Your task to perform on an android device: find photos in the google photos app Image 0: 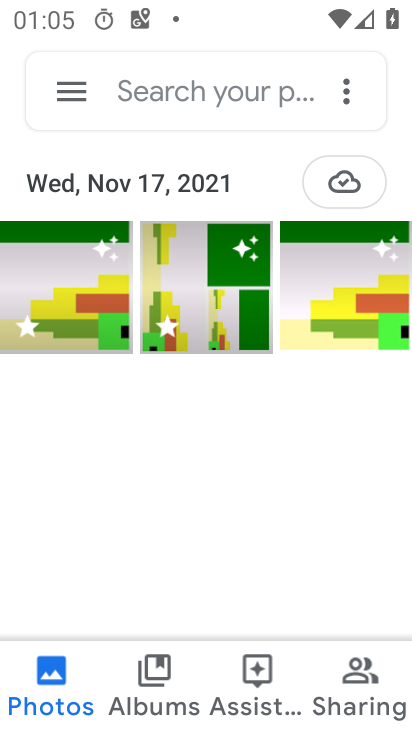
Step 0: press home button
Your task to perform on an android device: find photos in the google photos app Image 1: 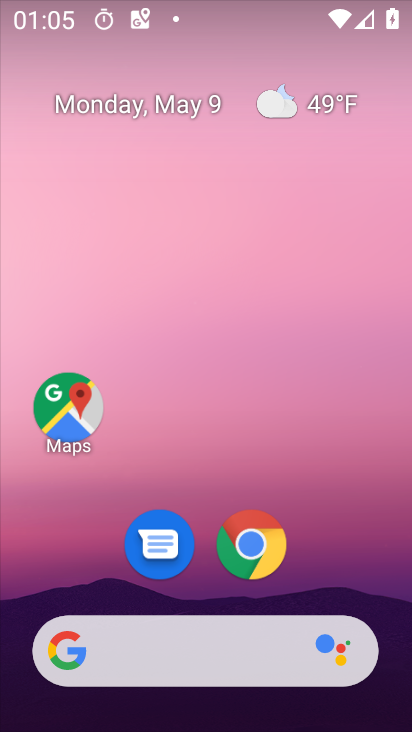
Step 1: drag from (345, 643) to (300, 51)
Your task to perform on an android device: find photos in the google photos app Image 2: 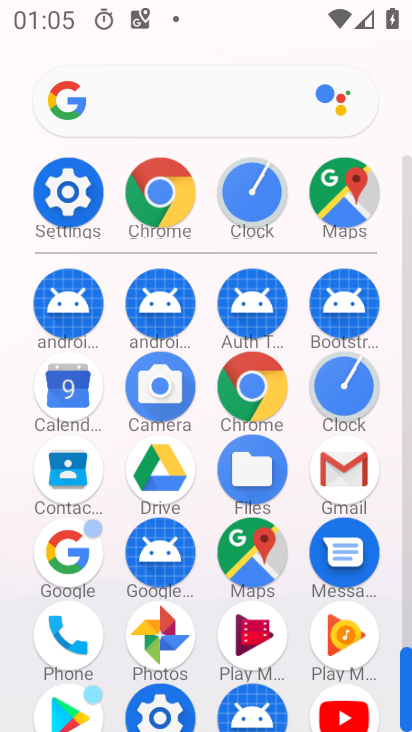
Step 2: click (165, 653)
Your task to perform on an android device: find photos in the google photos app Image 3: 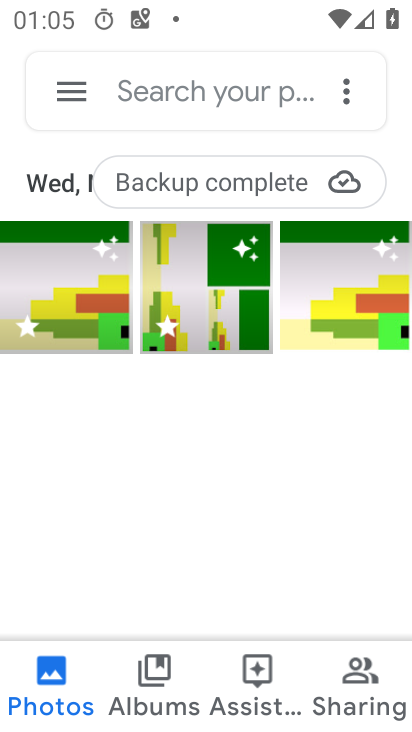
Step 3: task complete